Your task to perform on an android device: Go to calendar. Show me events next week Image 0: 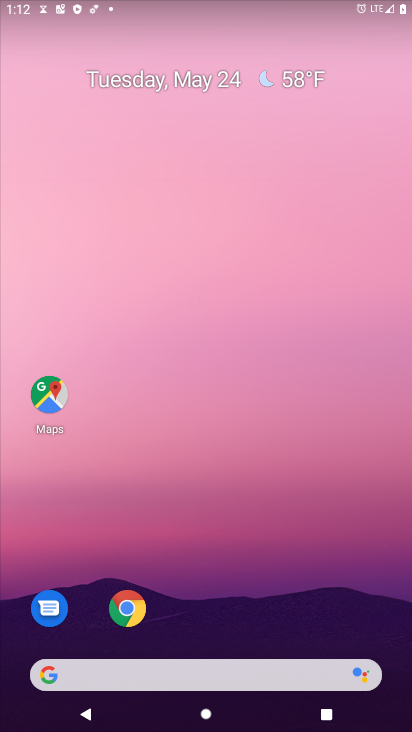
Step 0: drag from (310, 690) to (232, 37)
Your task to perform on an android device: Go to calendar. Show me events next week Image 1: 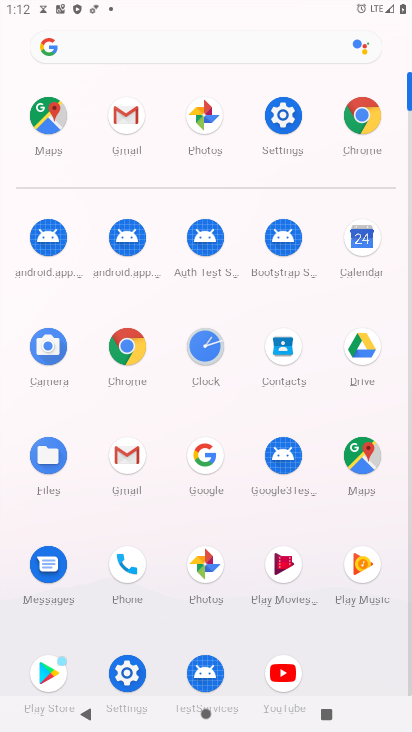
Step 1: click (385, 230)
Your task to perform on an android device: Go to calendar. Show me events next week Image 2: 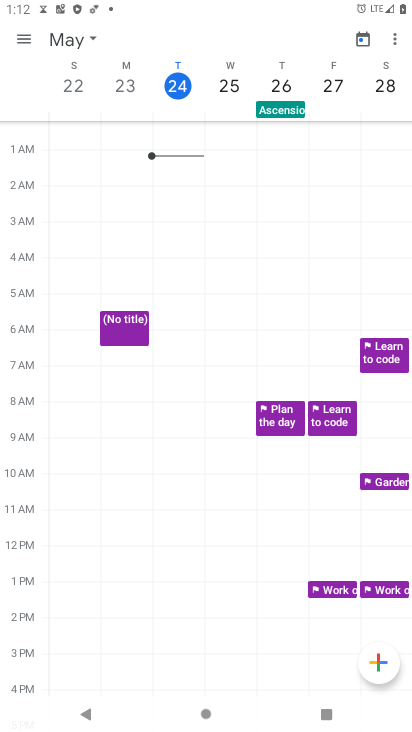
Step 2: click (21, 32)
Your task to perform on an android device: Go to calendar. Show me events next week Image 3: 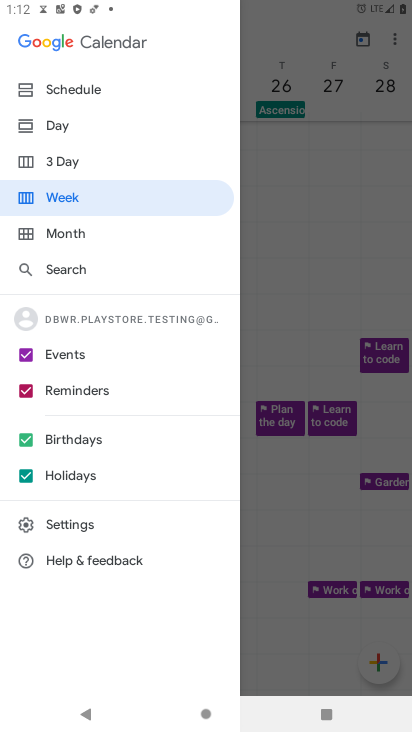
Step 3: click (68, 196)
Your task to perform on an android device: Go to calendar. Show me events next week Image 4: 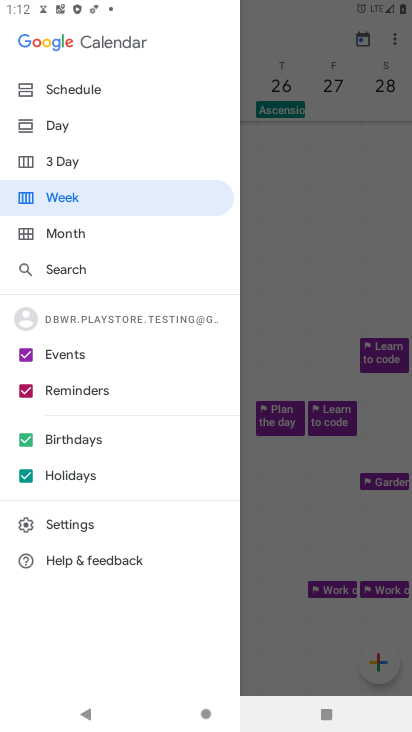
Step 4: click (82, 201)
Your task to perform on an android device: Go to calendar. Show me events next week Image 5: 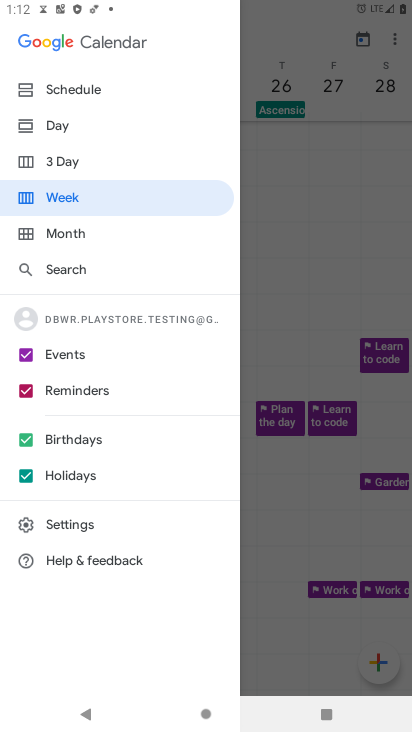
Step 5: click (86, 201)
Your task to perform on an android device: Go to calendar. Show me events next week Image 6: 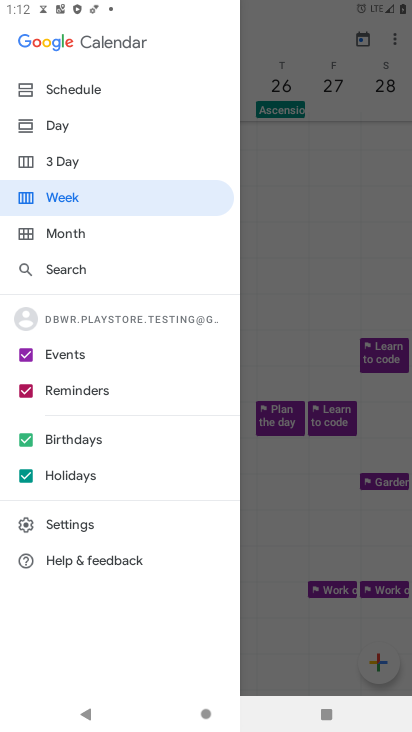
Step 6: click (336, 333)
Your task to perform on an android device: Go to calendar. Show me events next week Image 7: 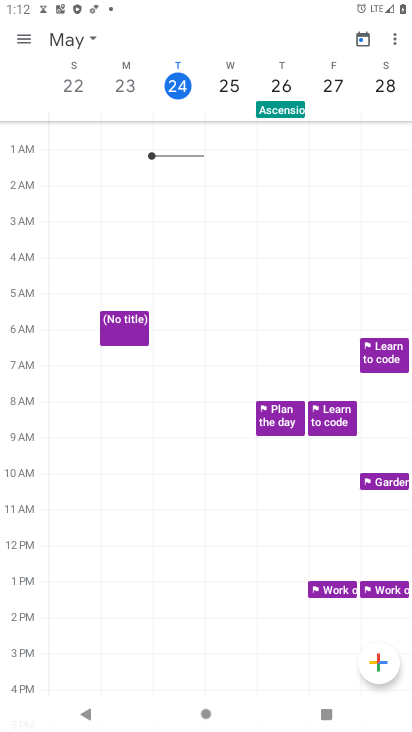
Step 7: task complete